Your task to perform on an android device: open app "Walmart Shopping & Grocery" (install if not already installed) Image 0: 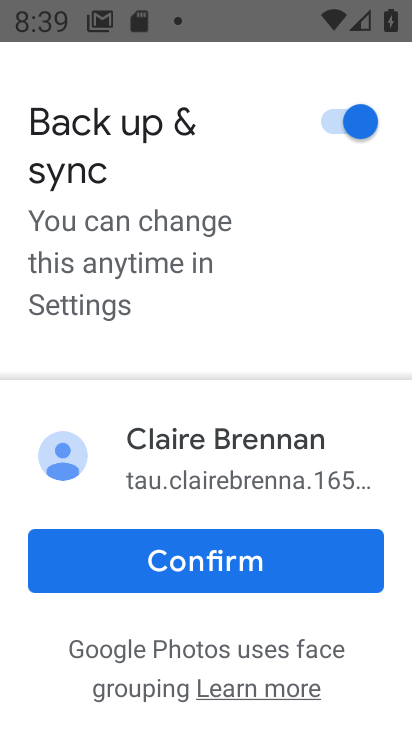
Step 0: press home button
Your task to perform on an android device: open app "Walmart Shopping & Grocery" (install if not already installed) Image 1: 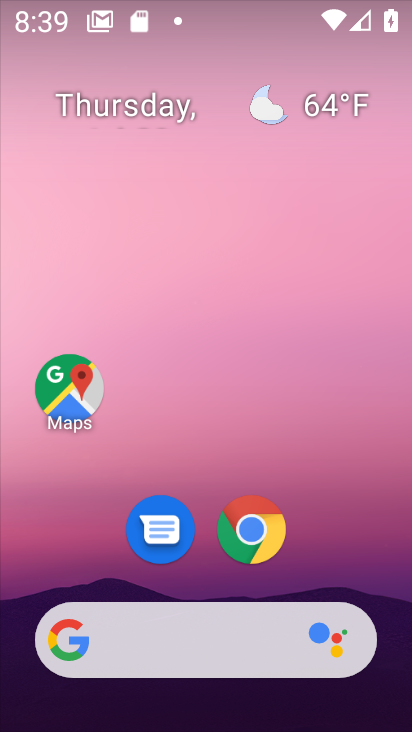
Step 1: drag from (199, 708) to (200, 106)
Your task to perform on an android device: open app "Walmart Shopping & Grocery" (install if not already installed) Image 2: 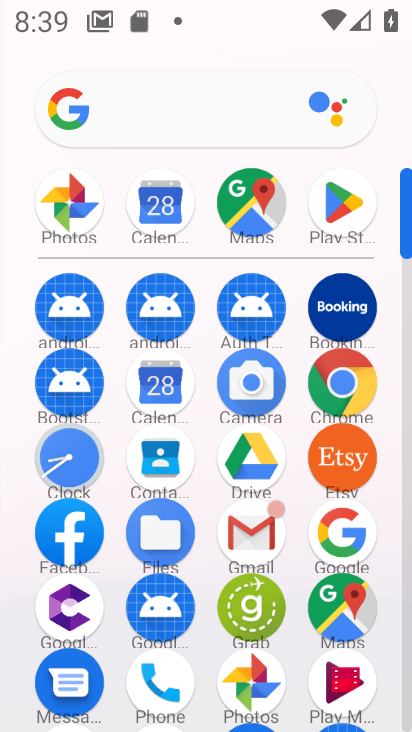
Step 2: click (338, 205)
Your task to perform on an android device: open app "Walmart Shopping & Grocery" (install if not already installed) Image 3: 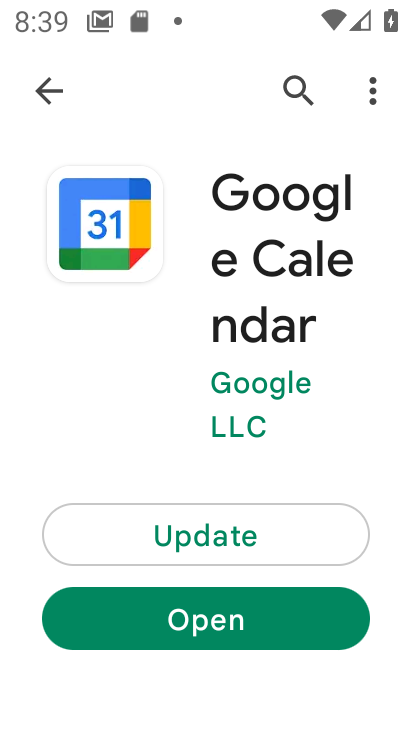
Step 3: click (297, 87)
Your task to perform on an android device: open app "Walmart Shopping & Grocery" (install if not already installed) Image 4: 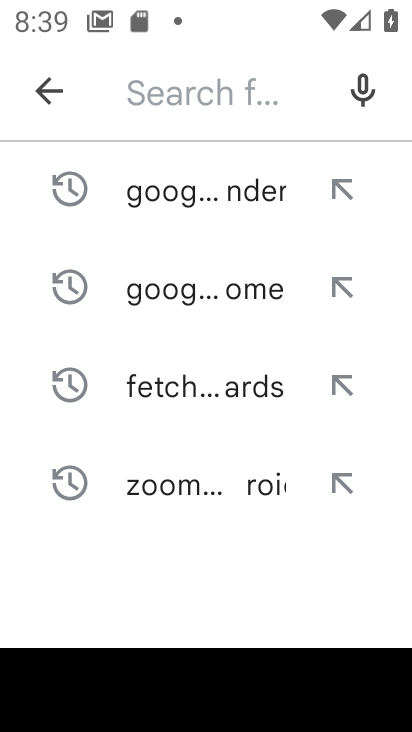
Step 4: type "Walmart Shopping & Grocery"
Your task to perform on an android device: open app "Walmart Shopping & Grocery" (install if not already installed) Image 5: 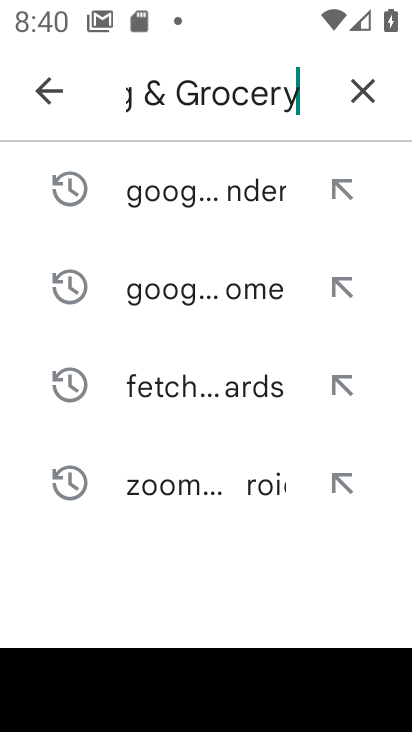
Step 5: type ""
Your task to perform on an android device: open app "Walmart Shopping & Grocery" (install if not already installed) Image 6: 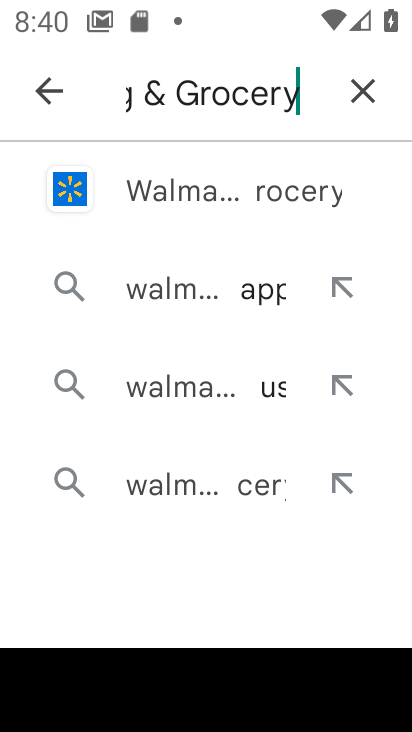
Step 6: click (192, 187)
Your task to perform on an android device: open app "Walmart Shopping & Grocery" (install if not already installed) Image 7: 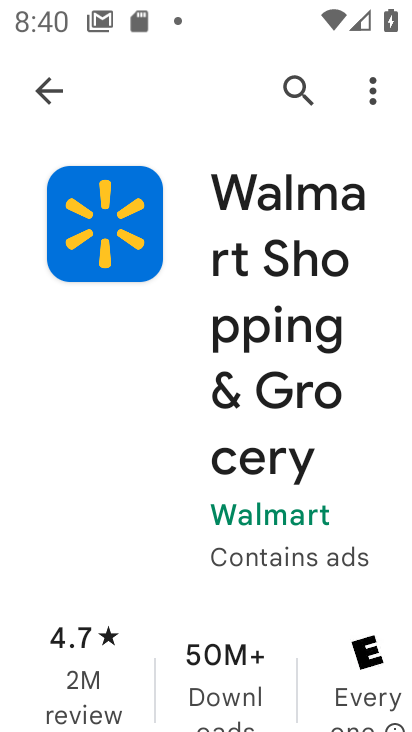
Step 7: drag from (187, 598) to (193, 265)
Your task to perform on an android device: open app "Walmart Shopping & Grocery" (install if not already installed) Image 8: 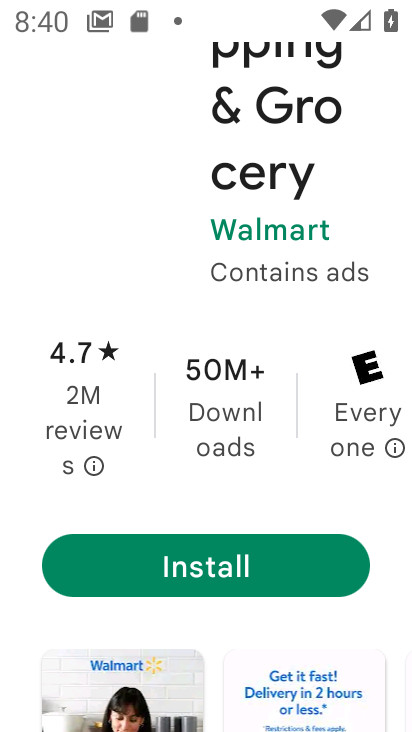
Step 8: click (183, 565)
Your task to perform on an android device: open app "Walmart Shopping & Grocery" (install if not already installed) Image 9: 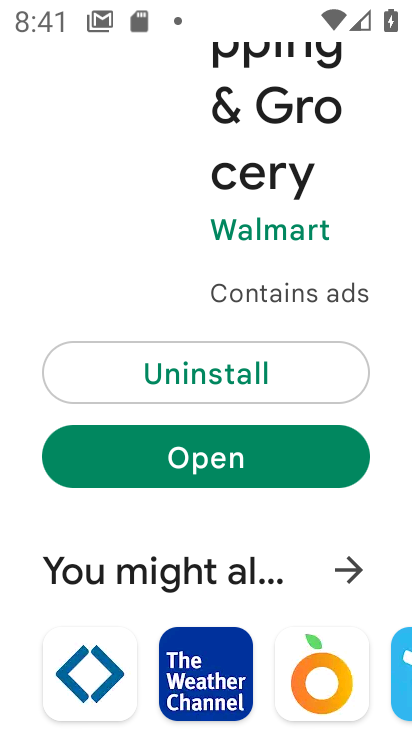
Step 9: click (215, 461)
Your task to perform on an android device: open app "Walmart Shopping & Grocery" (install if not already installed) Image 10: 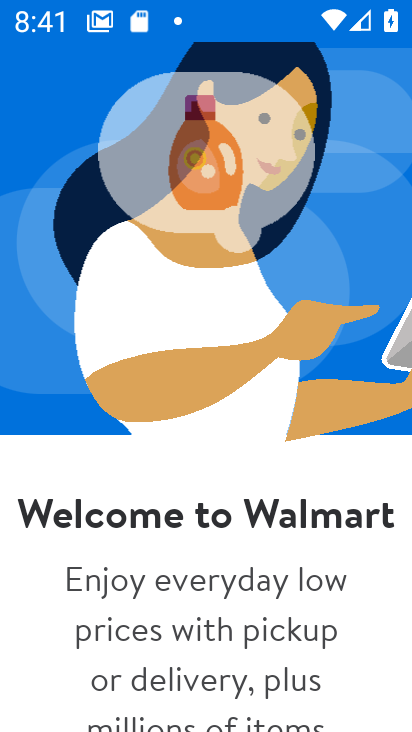
Step 10: task complete